Your task to perform on an android device: choose inbox layout in the gmail app Image 0: 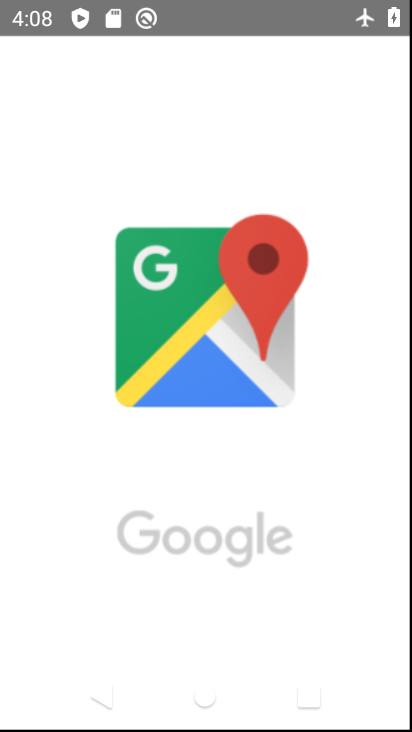
Step 0: click (377, 303)
Your task to perform on an android device: choose inbox layout in the gmail app Image 1: 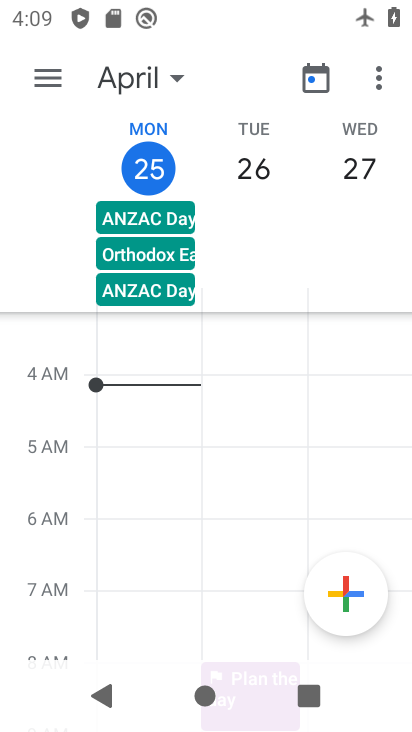
Step 1: press home button
Your task to perform on an android device: choose inbox layout in the gmail app Image 2: 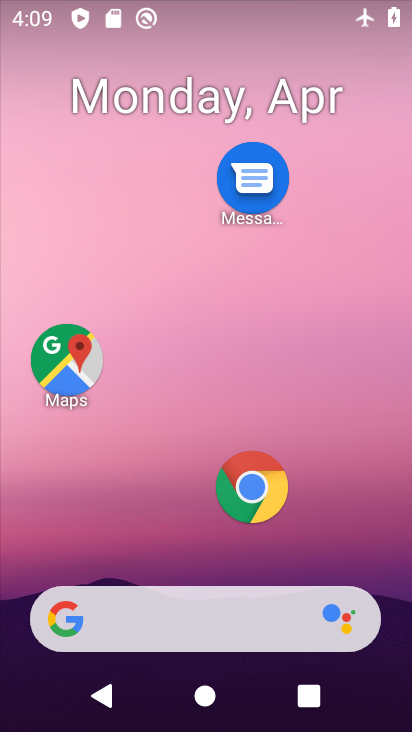
Step 2: drag from (159, 488) to (253, 1)
Your task to perform on an android device: choose inbox layout in the gmail app Image 3: 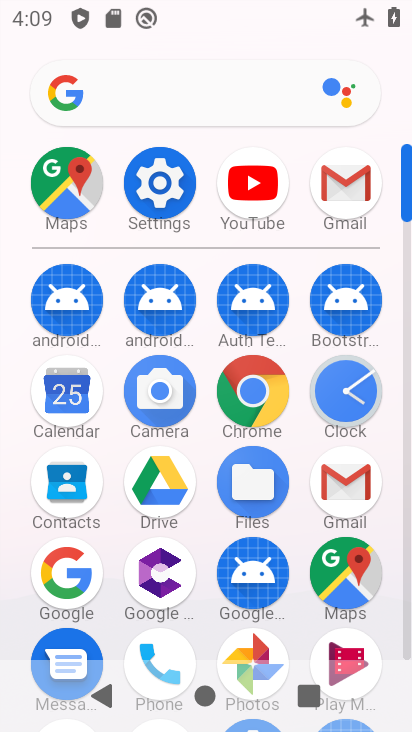
Step 3: click (357, 483)
Your task to perform on an android device: choose inbox layout in the gmail app Image 4: 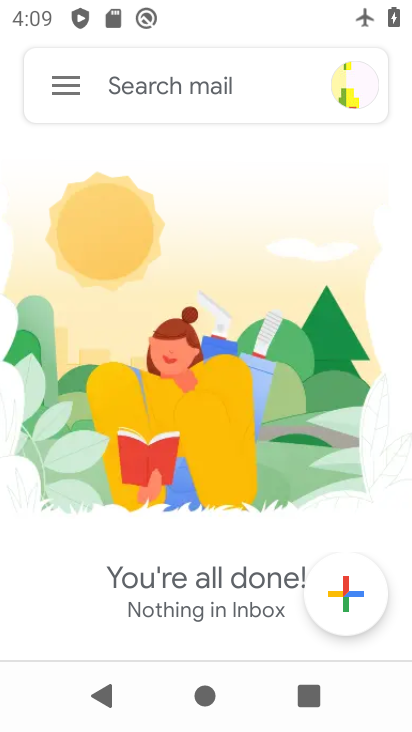
Step 4: click (51, 81)
Your task to perform on an android device: choose inbox layout in the gmail app Image 5: 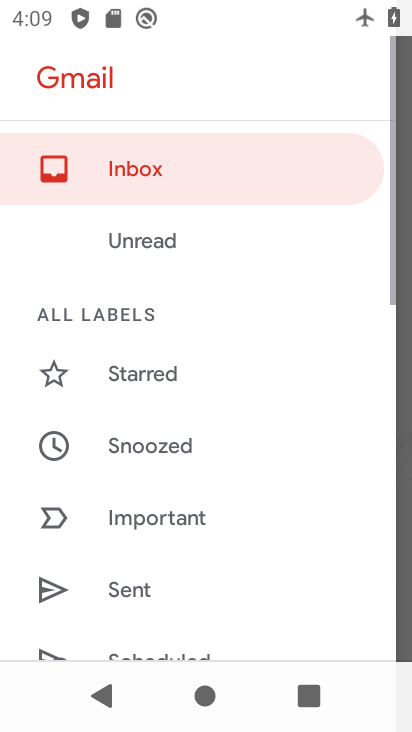
Step 5: drag from (149, 539) to (277, 141)
Your task to perform on an android device: choose inbox layout in the gmail app Image 6: 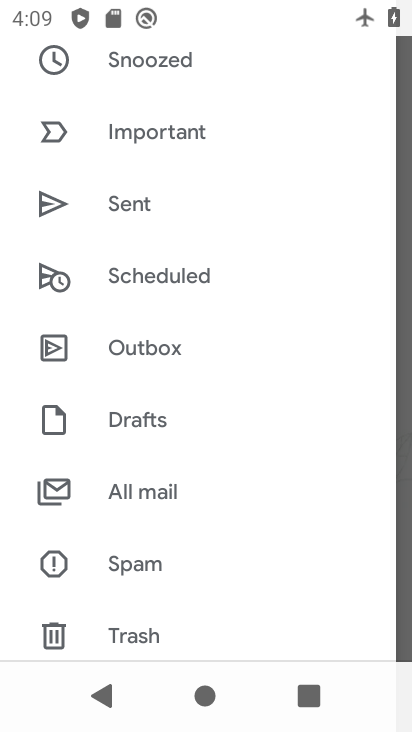
Step 6: drag from (176, 548) to (267, 142)
Your task to perform on an android device: choose inbox layout in the gmail app Image 7: 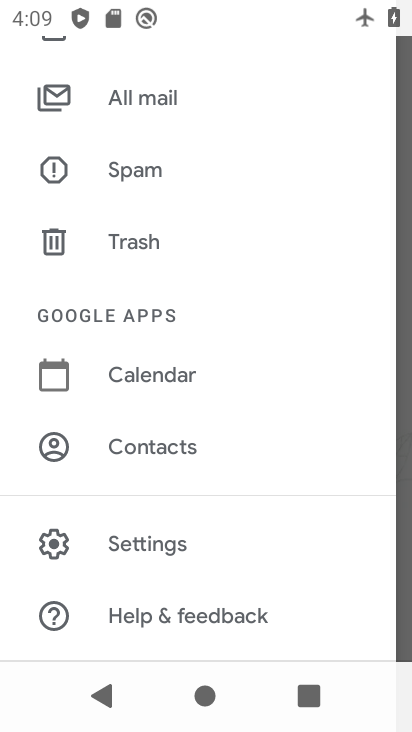
Step 7: click (130, 557)
Your task to perform on an android device: choose inbox layout in the gmail app Image 8: 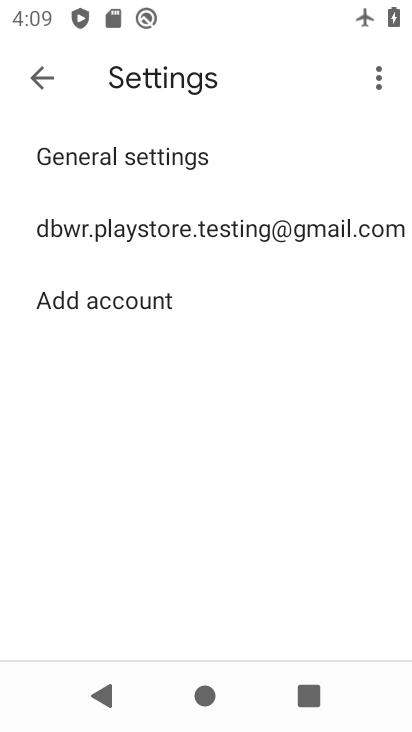
Step 8: click (153, 236)
Your task to perform on an android device: choose inbox layout in the gmail app Image 9: 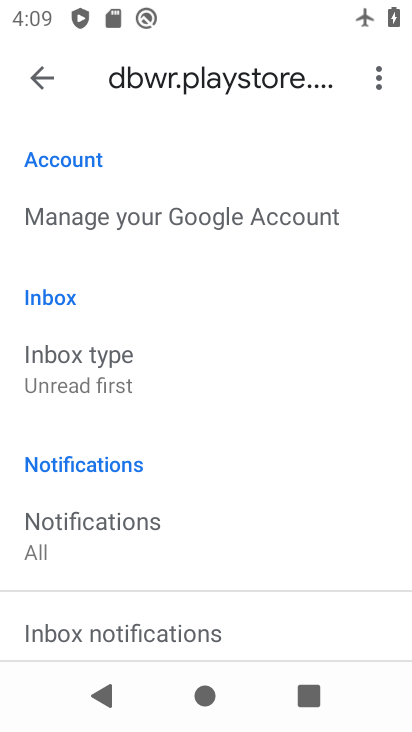
Step 9: click (111, 363)
Your task to perform on an android device: choose inbox layout in the gmail app Image 10: 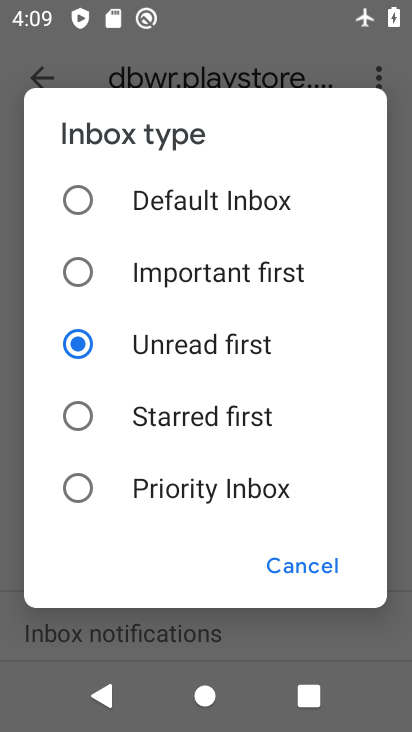
Step 10: click (80, 203)
Your task to perform on an android device: choose inbox layout in the gmail app Image 11: 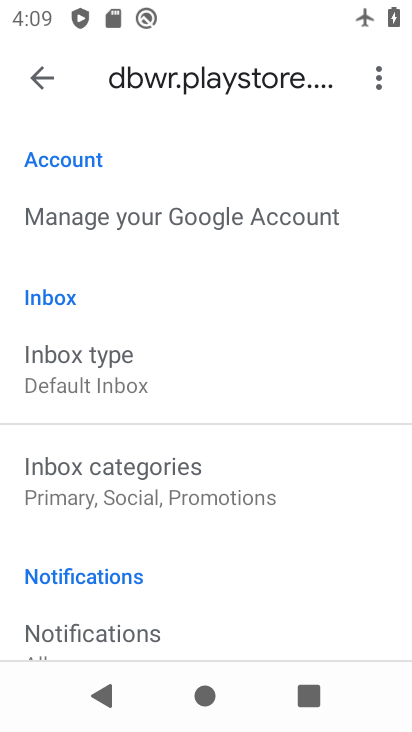
Step 11: task complete